Your task to perform on an android device: View the shopping cart on newegg.com. Search for corsair k70 on newegg.com, select the first entry, add it to the cart, then select checkout. Image 0: 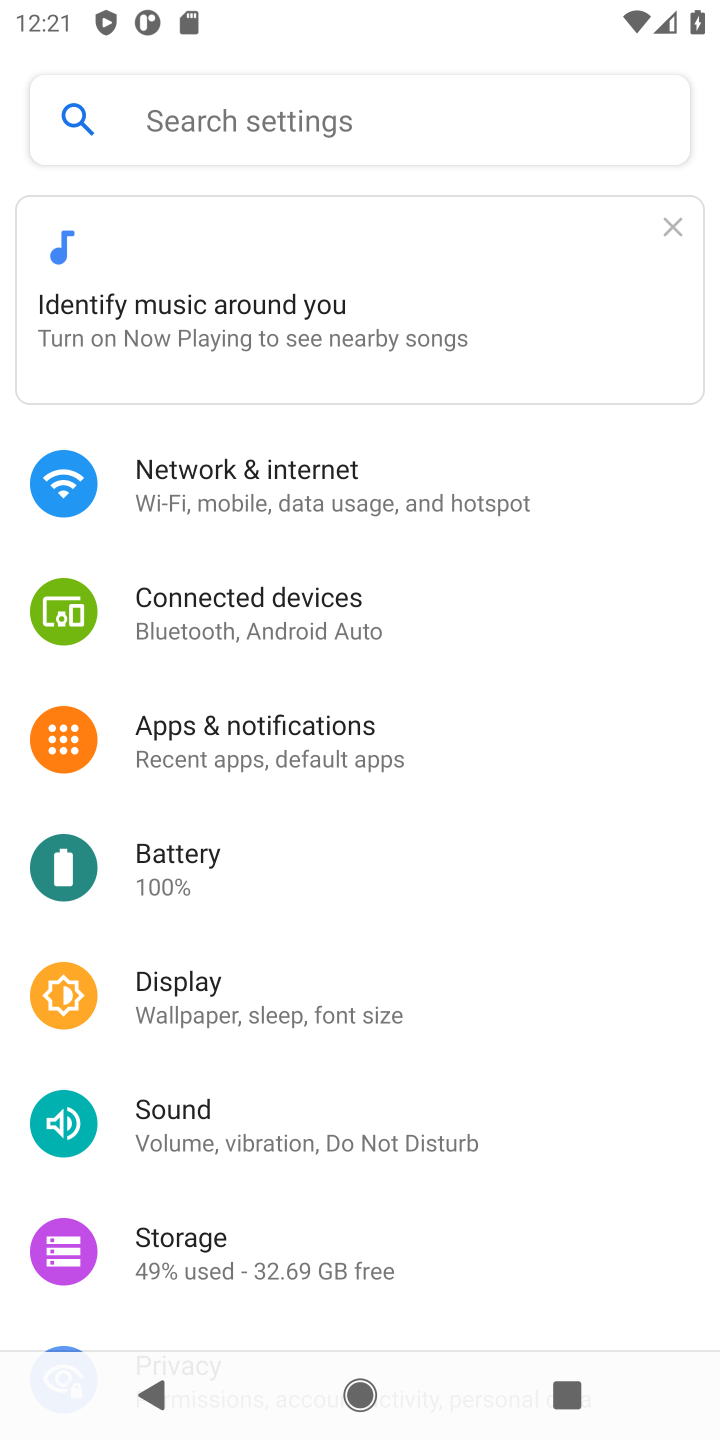
Step 0: press home button
Your task to perform on an android device: View the shopping cart on newegg.com. Search for corsair k70 on newegg.com, select the first entry, add it to the cart, then select checkout. Image 1: 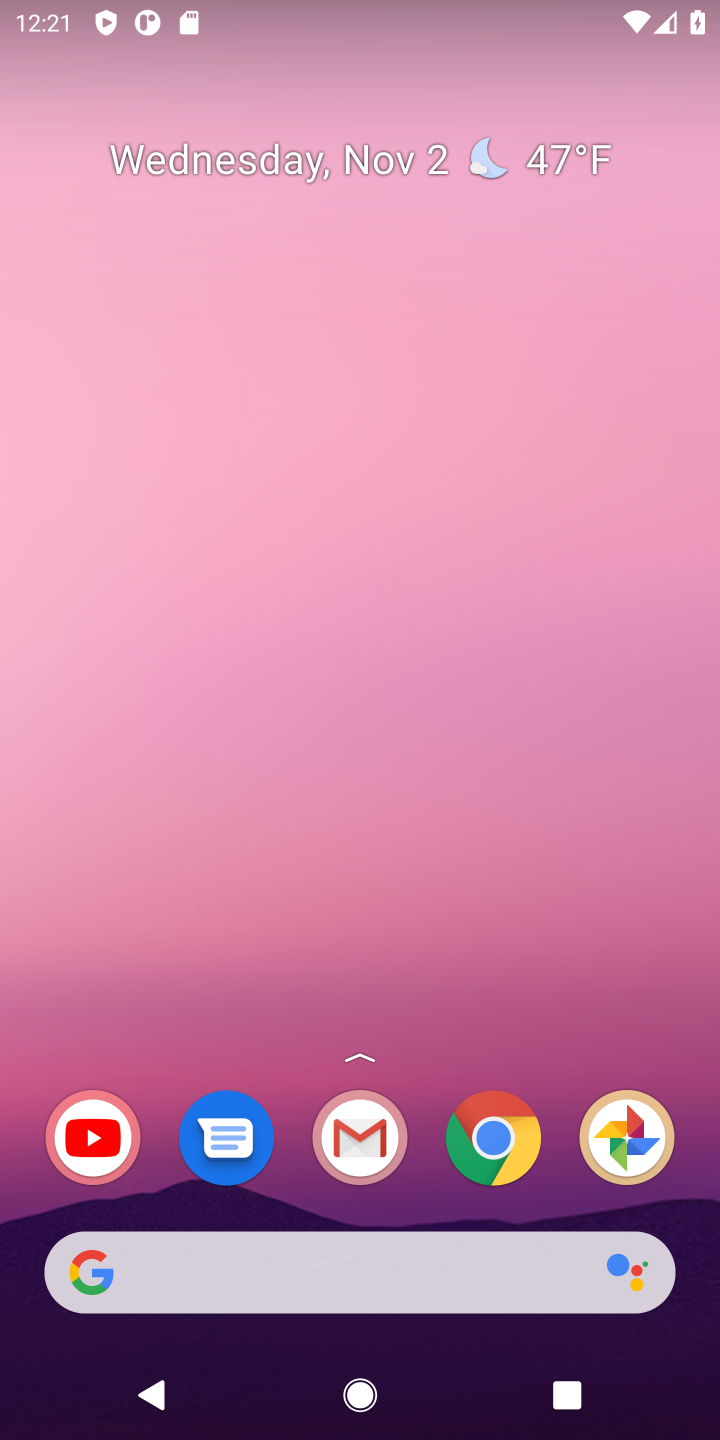
Step 1: drag from (431, 1346) to (359, 205)
Your task to perform on an android device: View the shopping cart on newegg.com. Search for corsair k70 on newegg.com, select the first entry, add it to the cart, then select checkout. Image 2: 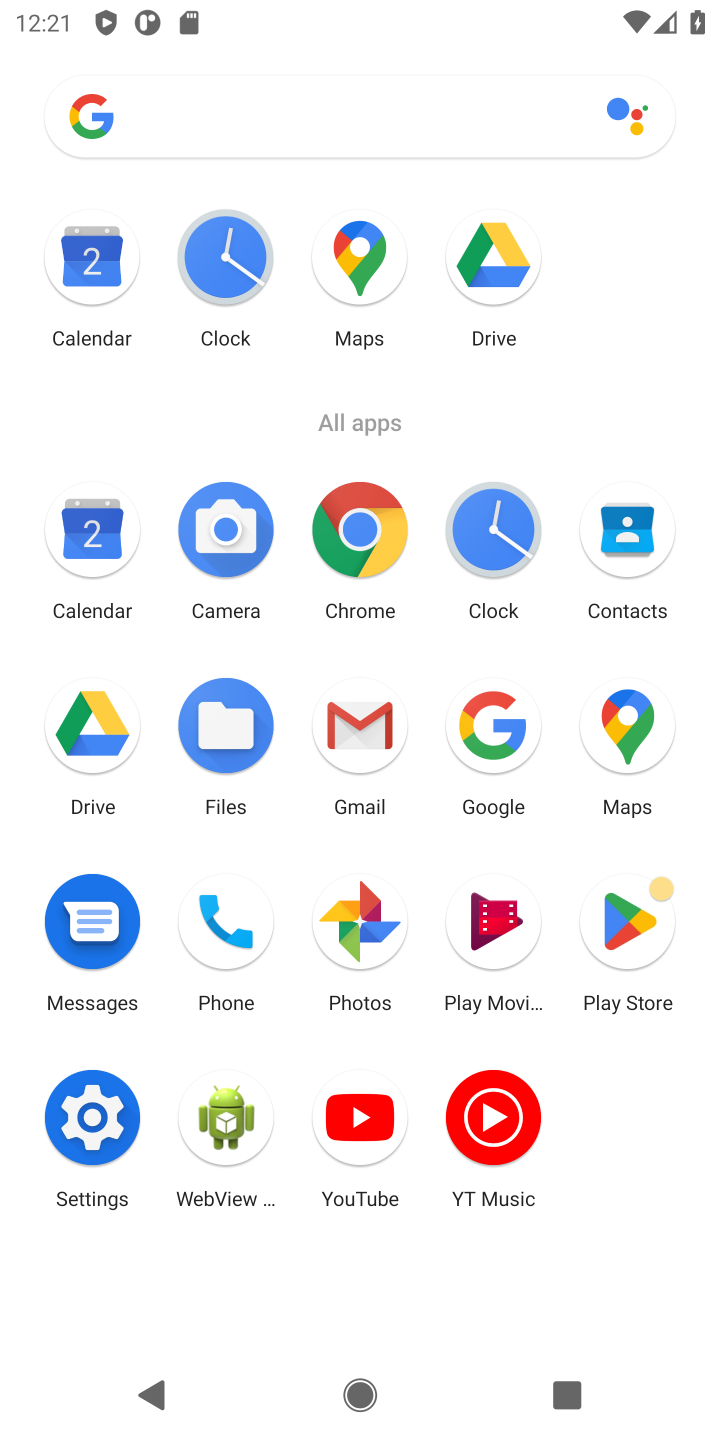
Step 2: click (356, 509)
Your task to perform on an android device: View the shopping cart on newegg.com. Search for corsair k70 on newegg.com, select the first entry, add it to the cart, then select checkout. Image 3: 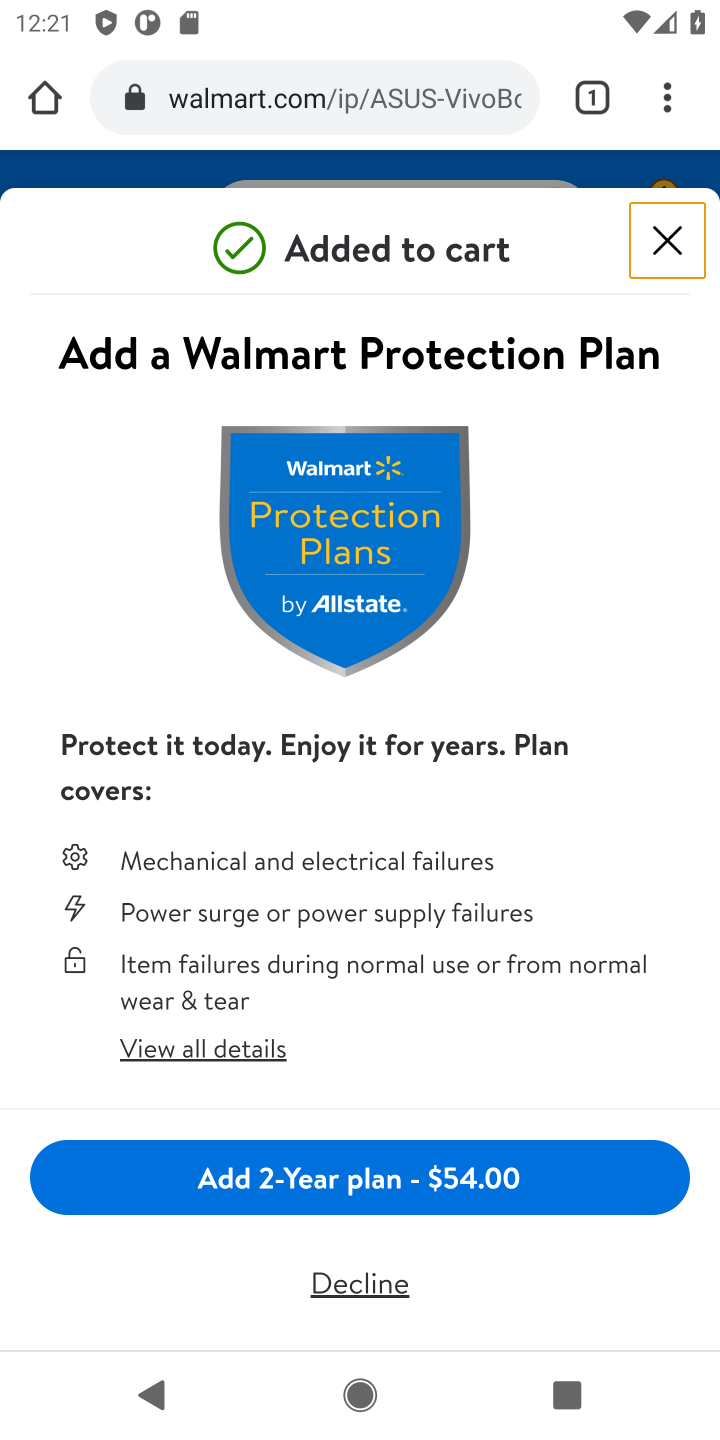
Step 3: click (382, 93)
Your task to perform on an android device: View the shopping cart on newegg.com. Search for corsair k70 on newegg.com, select the first entry, add it to the cart, then select checkout. Image 4: 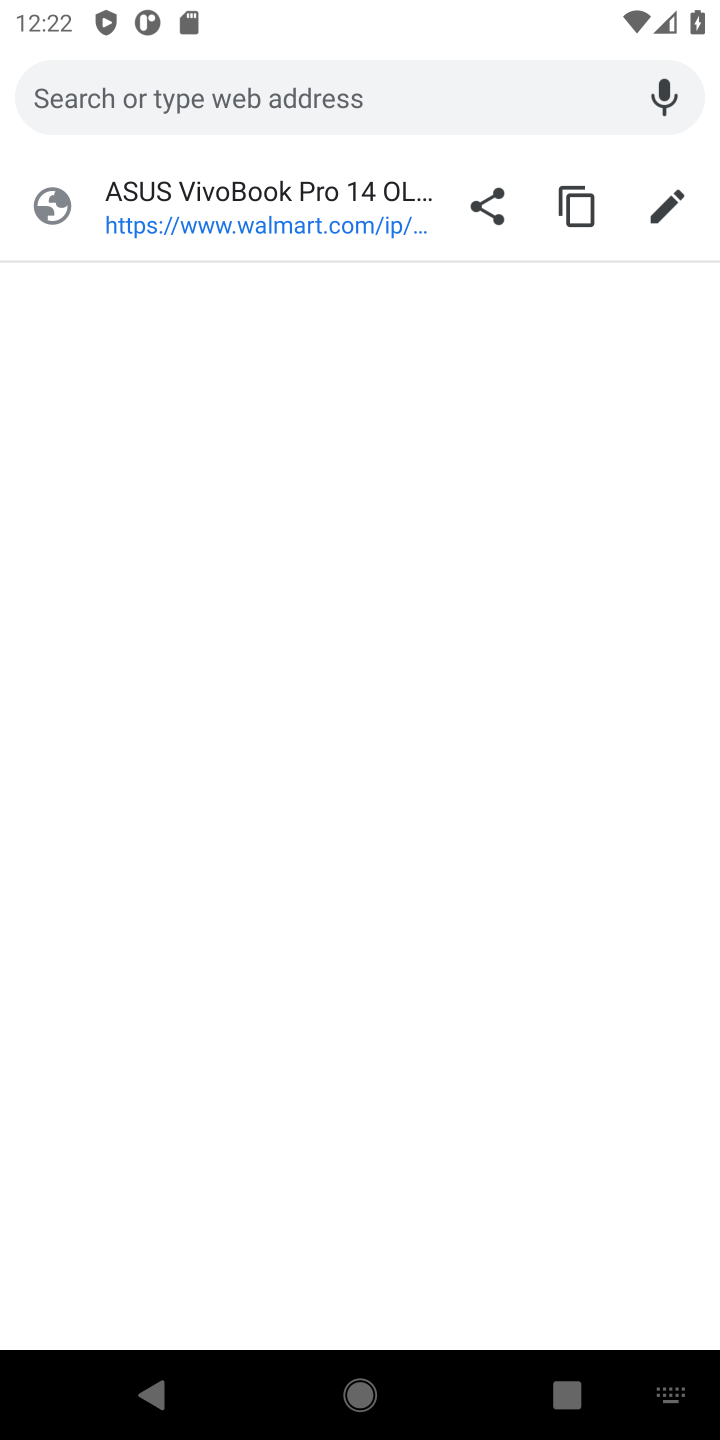
Step 4: type " newegg.com"
Your task to perform on an android device: View the shopping cart on newegg.com. Search for corsair k70 on newegg.com, select the first entry, add it to the cart, then select checkout. Image 5: 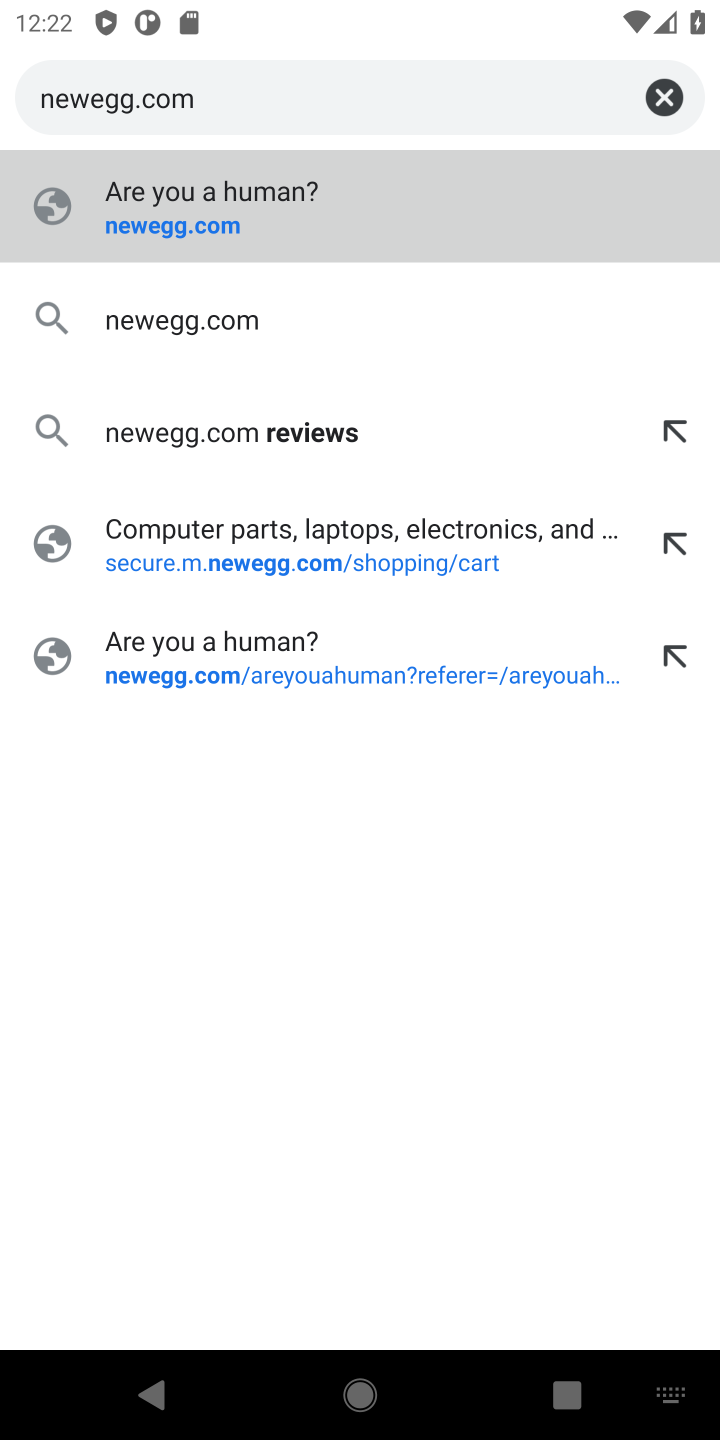
Step 5: type ""
Your task to perform on an android device: View the shopping cart on newegg.com. Search for corsair k70 on newegg.com, select the first entry, add it to the cart, then select checkout. Image 6: 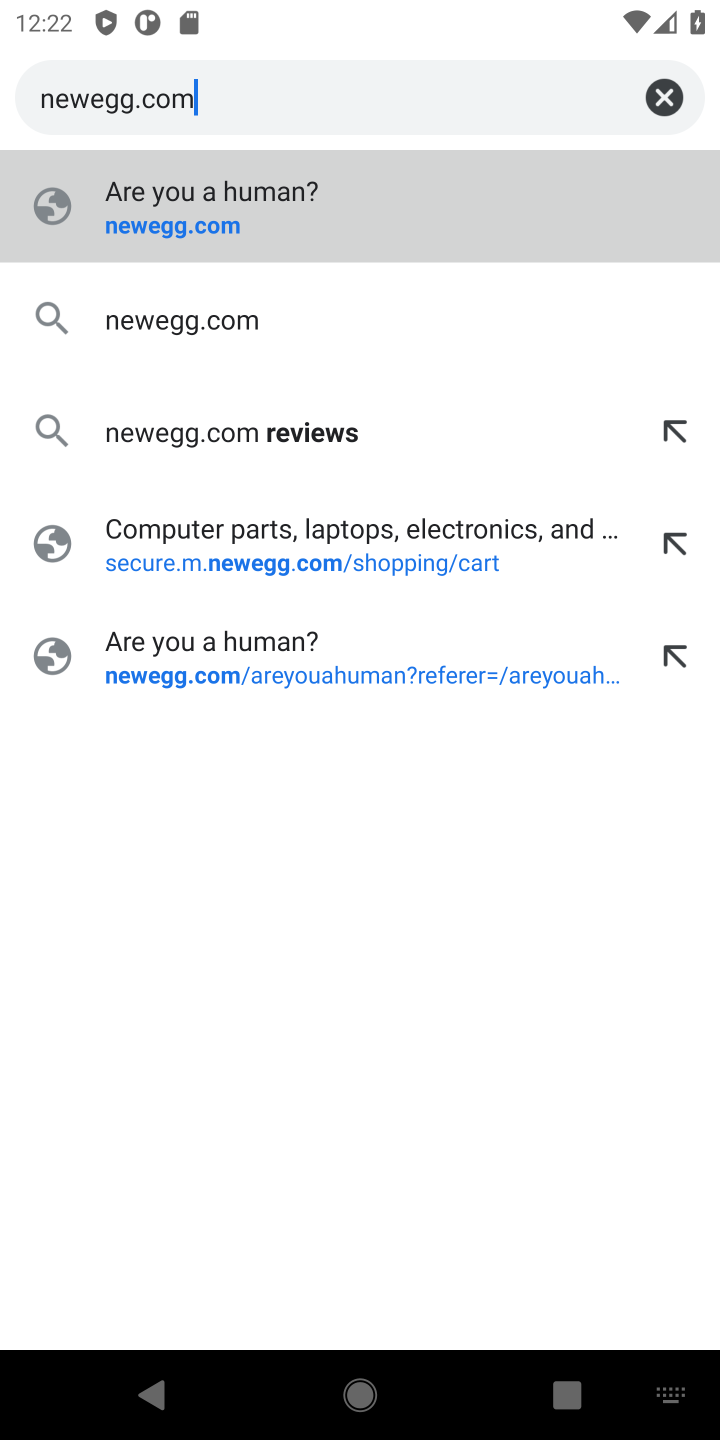
Step 6: click (168, 225)
Your task to perform on an android device: View the shopping cart on newegg.com. Search for corsair k70 on newegg.com, select the first entry, add it to the cart, then select checkout. Image 7: 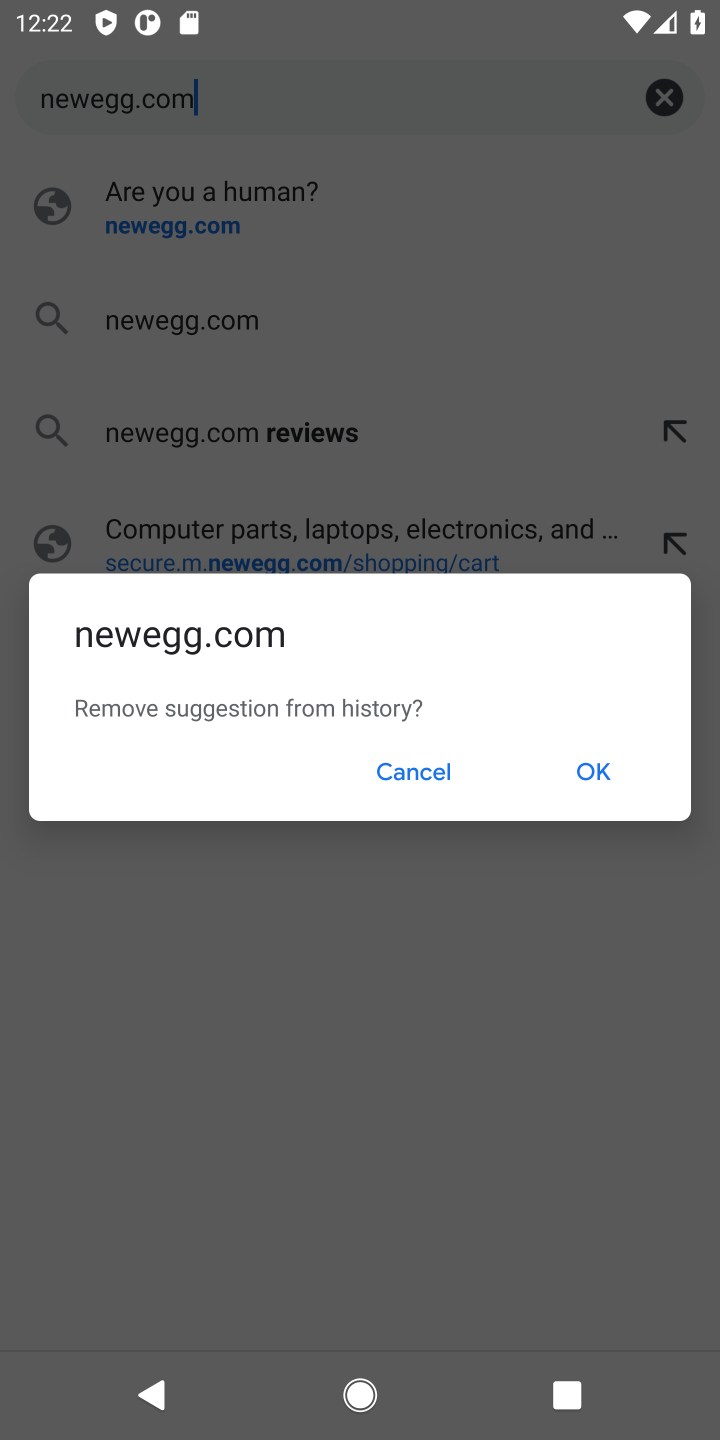
Step 7: click (594, 760)
Your task to perform on an android device: View the shopping cart on newegg.com. Search for corsair k70 on newegg.com, select the first entry, add it to the cart, then select checkout. Image 8: 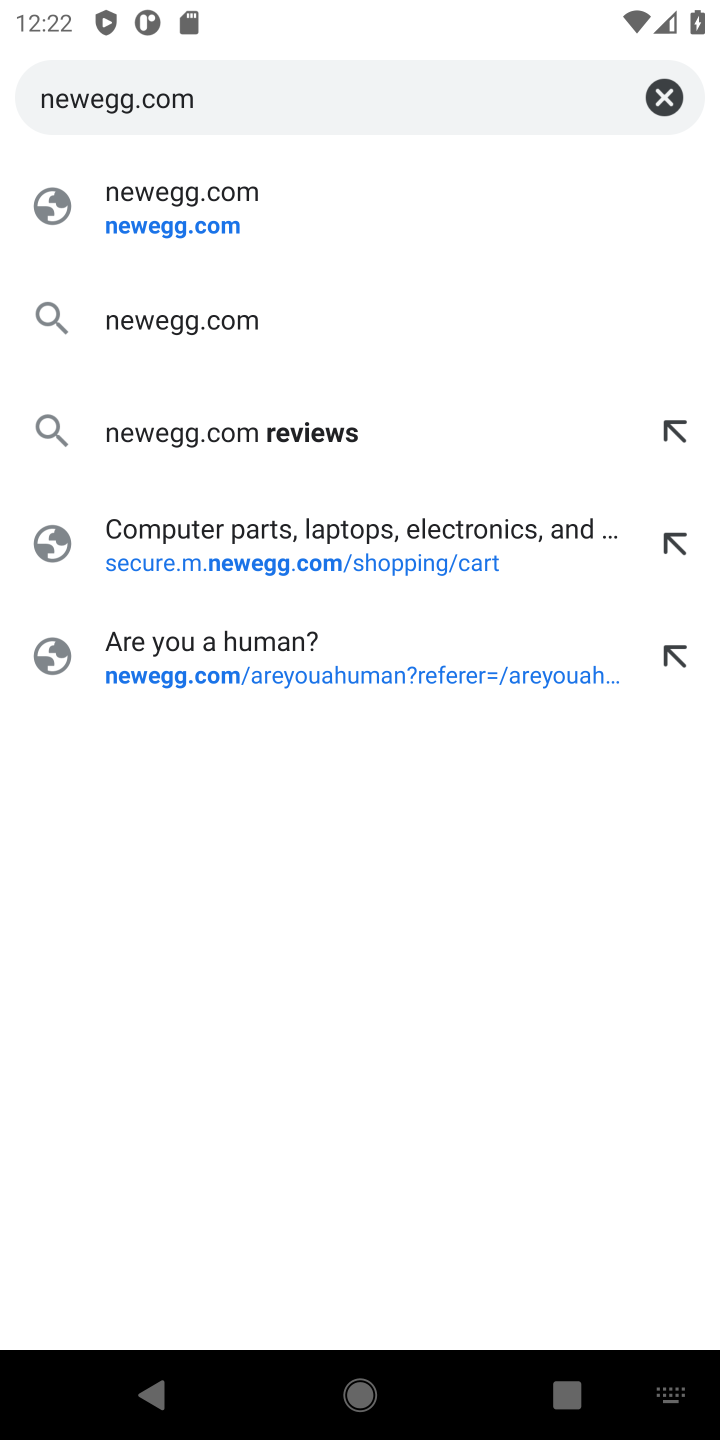
Step 8: click (161, 221)
Your task to perform on an android device: View the shopping cart on newegg.com. Search for corsair k70 on newegg.com, select the first entry, add it to the cart, then select checkout. Image 9: 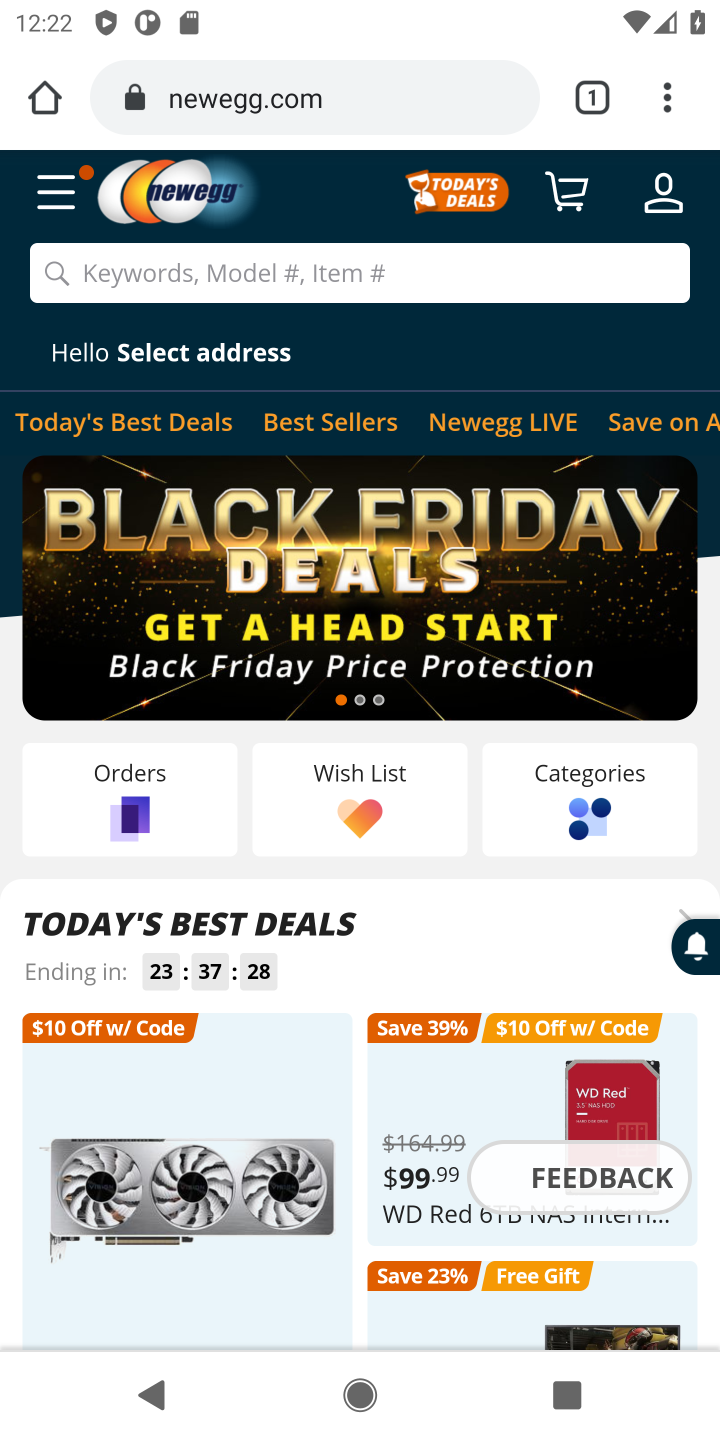
Step 9: click (215, 262)
Your task to perform on an android device: View the shopping cart on newegg.com. Search for corsair k70 on newegg.com, select the first entry, add it to the cart, then select checkout. Image 10: 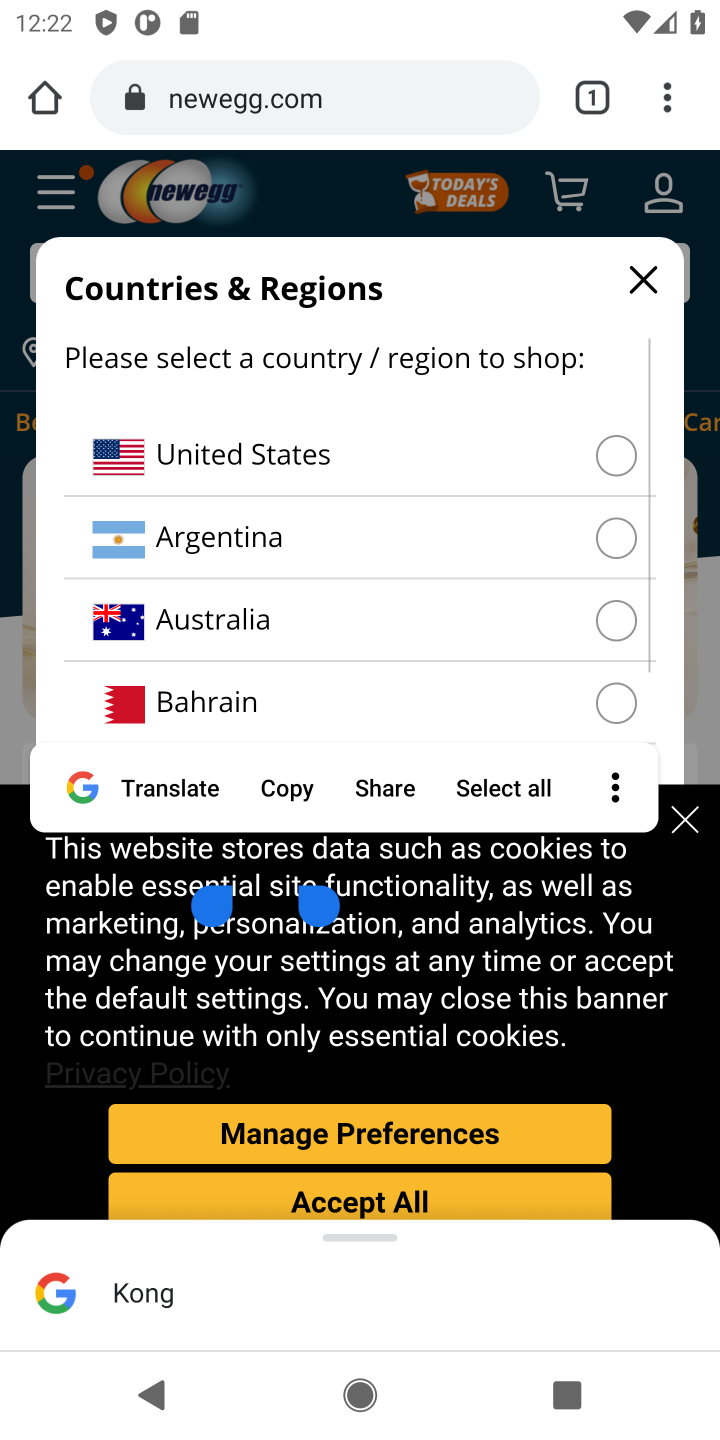
Step 10: click (564, 190)
Your task to perform on an android device: View the shopping cart on newegg.com. Search for corsair k70 on newegg.com, select the first entry, add it to the cart, then select checkout. Image 11: 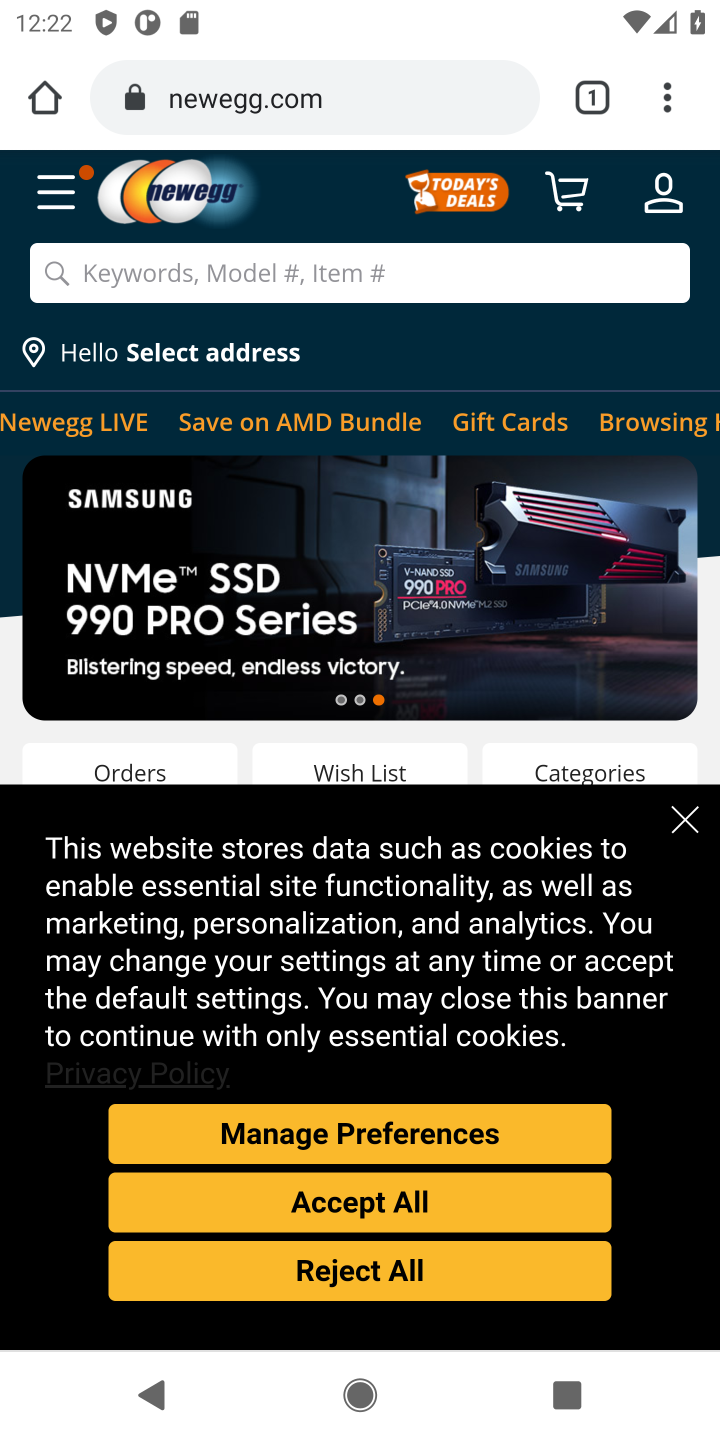
Step 11: click (570, 189)
Your task to perform on an android device: View the shopping cart on newegg.com. Search for corsair k70 on newegg.com, select the first entry, add it to the cart, then select checkout. Image 12: 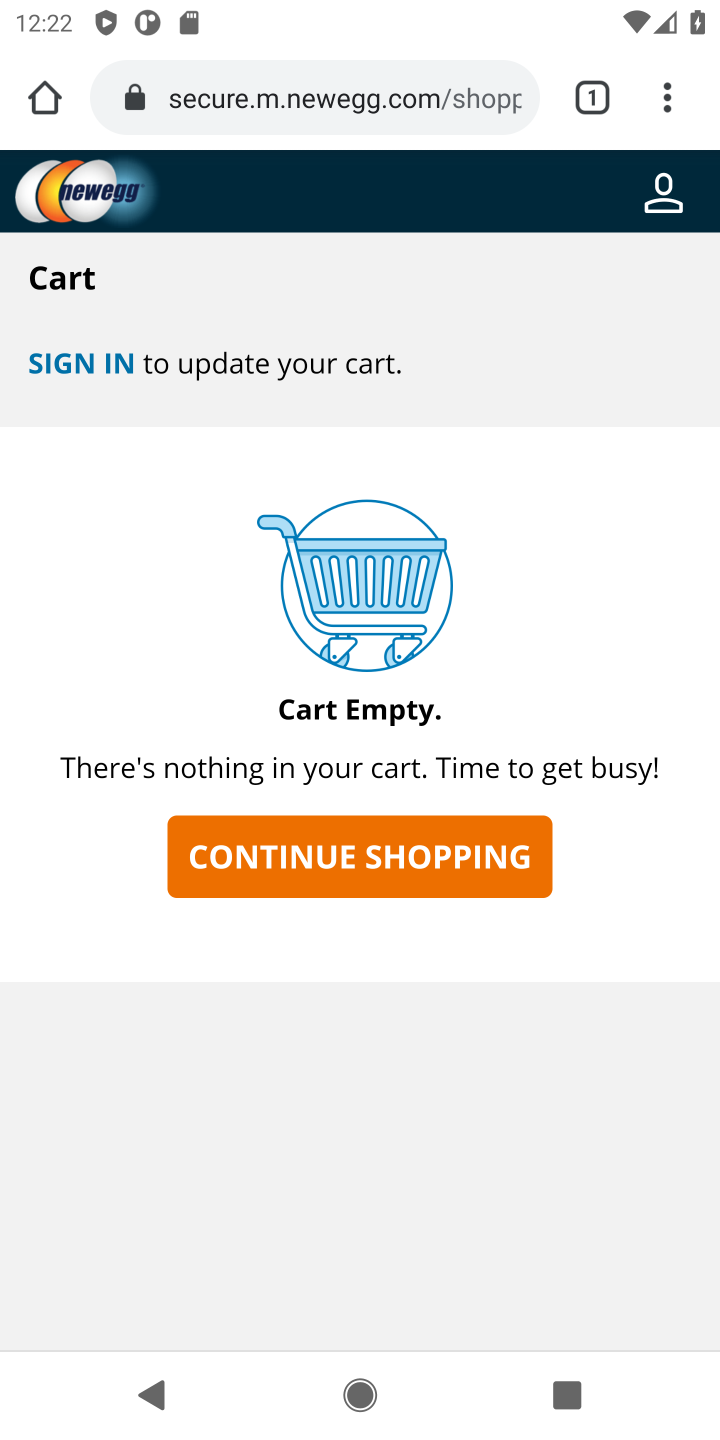
Step 12: press back button
Your task to perform on an android device: View the shopping cart on newegg.com. Search for corsair k70 on newegg.com, select the first entry, add it to the cart, then select checkout. Image 13: 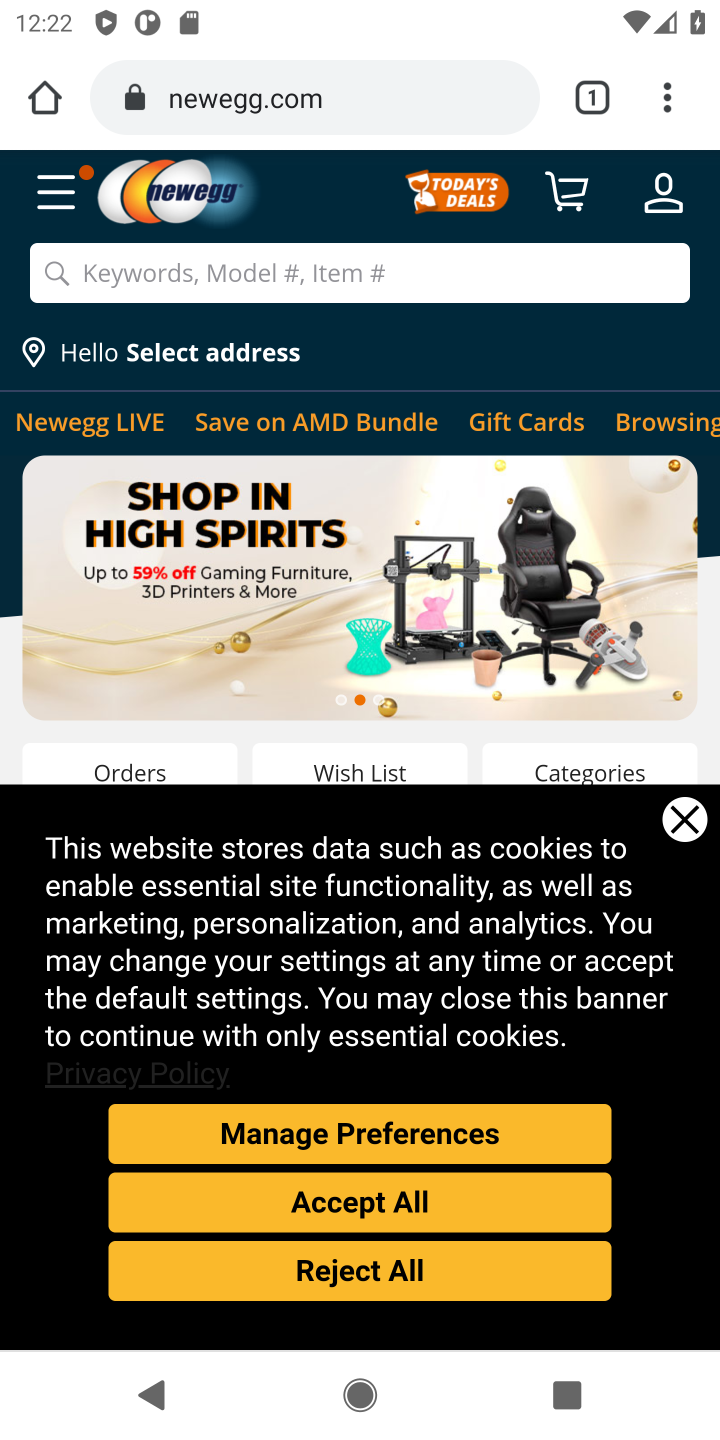
Step 13: click (421, 254)
Your task to perform on an android device: View the shopping cart on newegg.com. Search for corsair k70 on newegg.com, select the first entry, add it to the cart, then select checkout. Image 14: 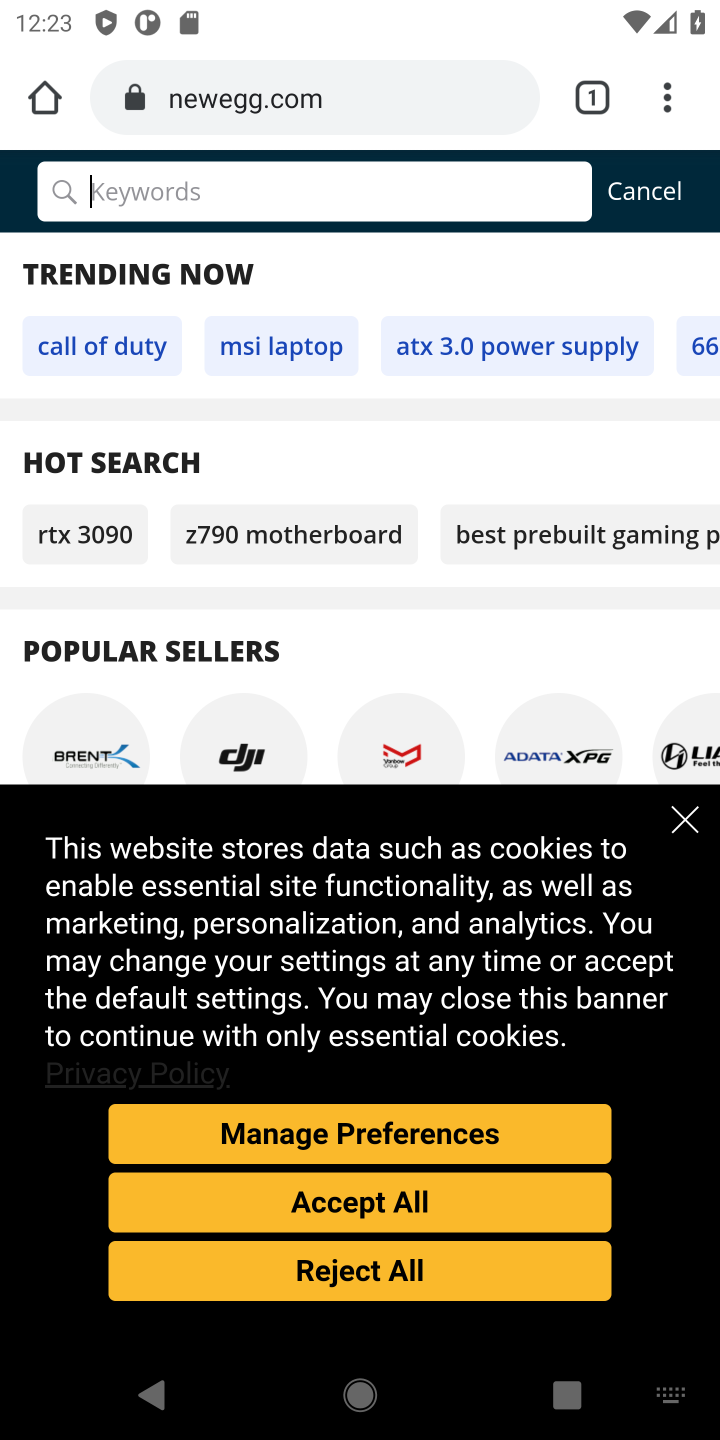
Step 14: type "corsair k70"
Your task to perform on an android device: View the shopping cart on newegg.com. Search for corsair k70 on newegg.com, select the first entry, add it to the cart, then select checkout. Image 15: 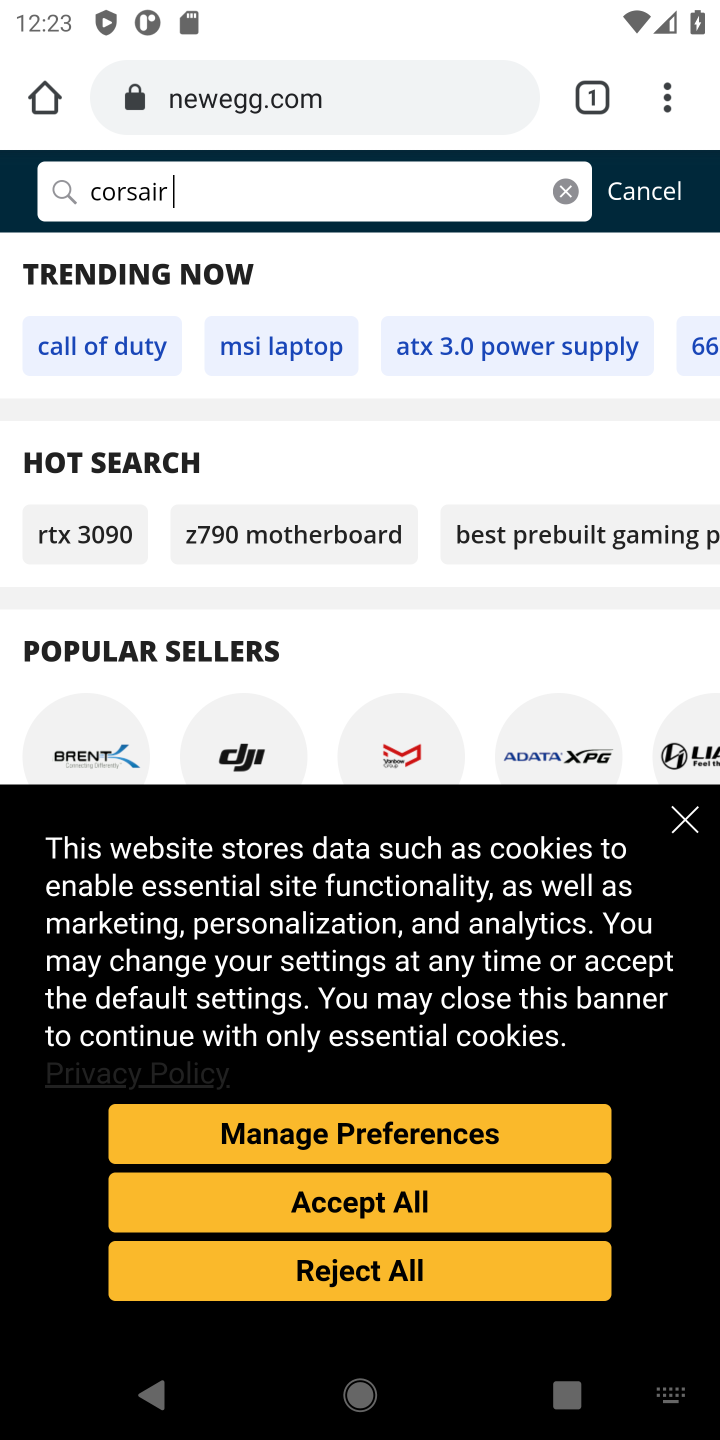
Step 15: type ""
Your task to perform on an android device: View the shopping cart on newegg.com. Search for corsair k70 on newegg.com, select the first entry, add it to the cart, then select checkout. Image 16: 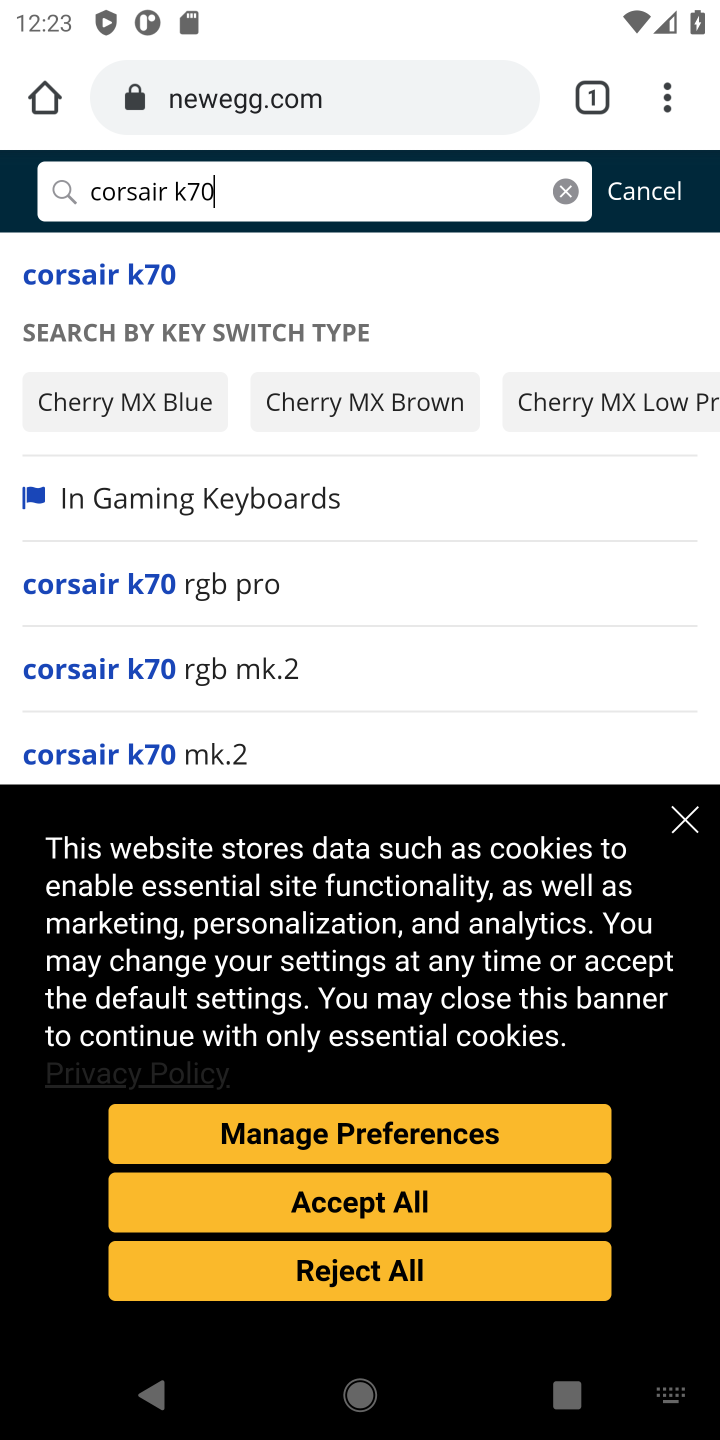
Step 16: click (91, 267)
Your task to perform on an android device: View the shopping cart on newegg.com. Search for corsair k70 on newegg.com, select the first entry, add it to the cart, then select checkout. Image 17: 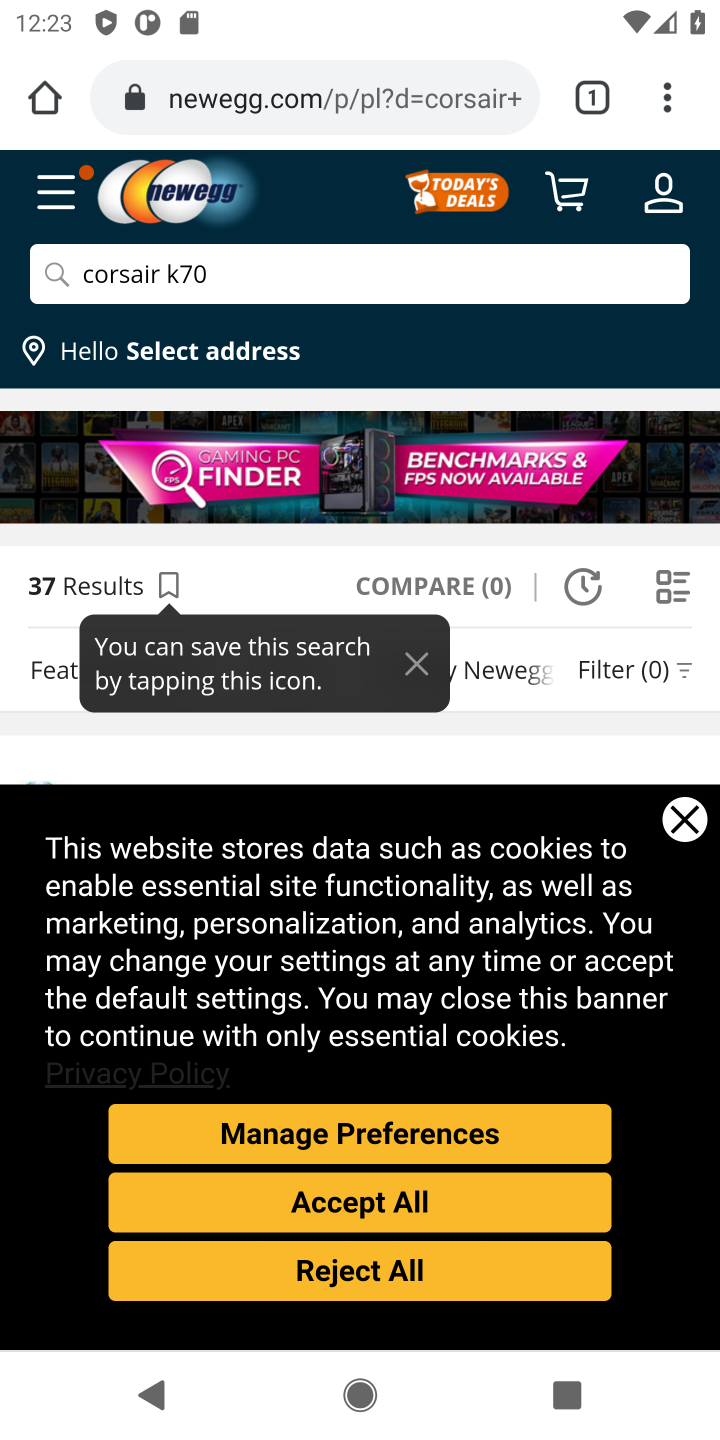
Step 17: click (681, 818)
Your task to perform on an android device: View the shopping cart on newegg.com. Search for corsair k70 on newegg.com, select the first entry, add it to the cart, then select checkout. Image 18: 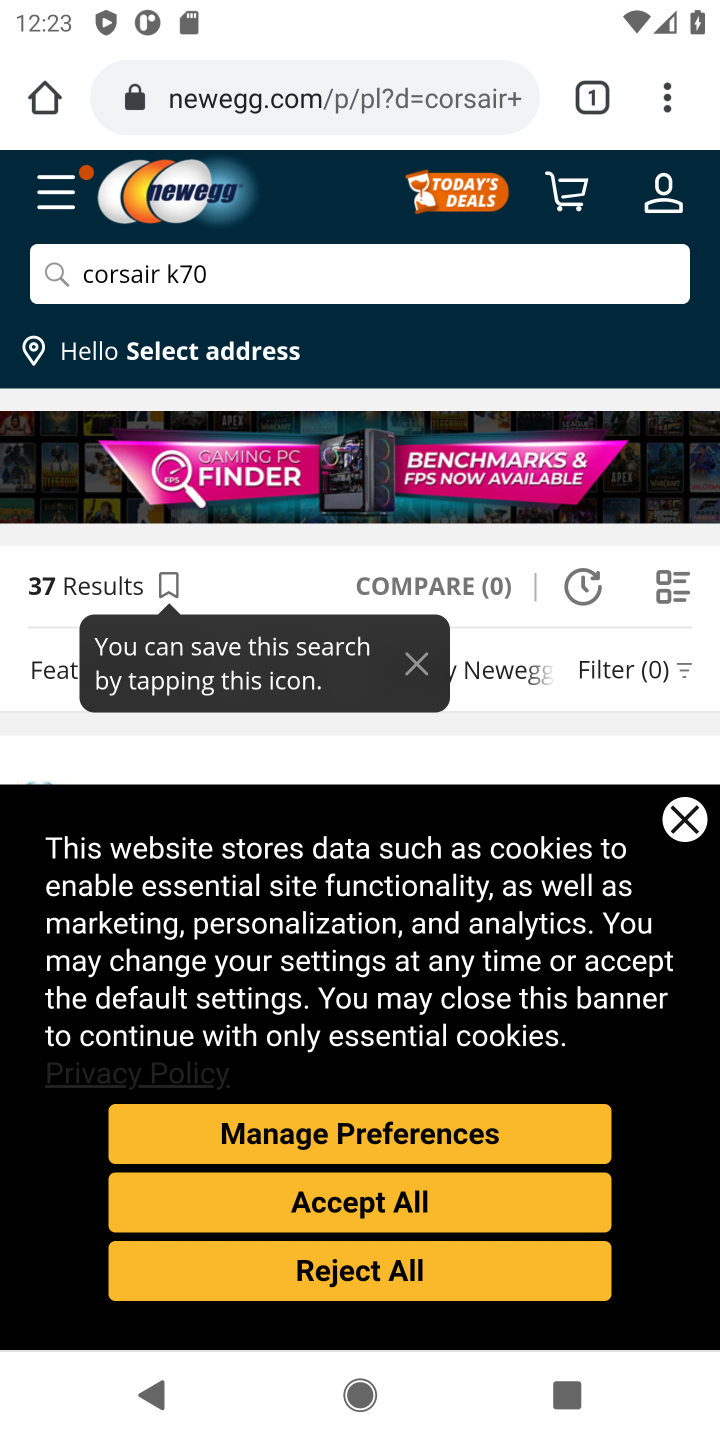
Step 18: click (682, 820)
Your task to perform on an android device: View the shopping cart on newegg.com. Search for corsair k70 on newegg.com, select the first entry, add it to the cart, then select checkout. Image 19: 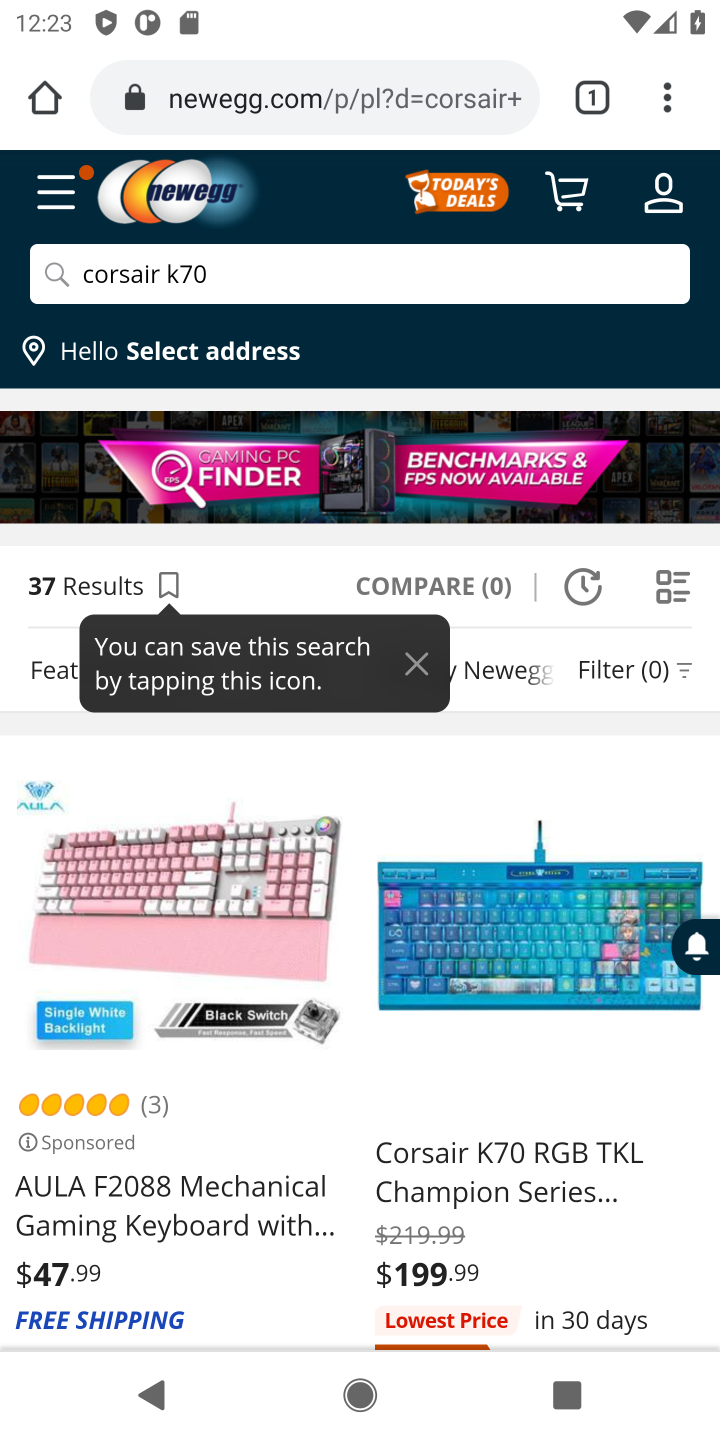
Step 19: click (153, 916)
Your task to perform on an android device: View the shopping cart on newegg.com. Search for corsair k70 on newegg.com, select the first entry, add it to the cart, then select checkout. Image 20: 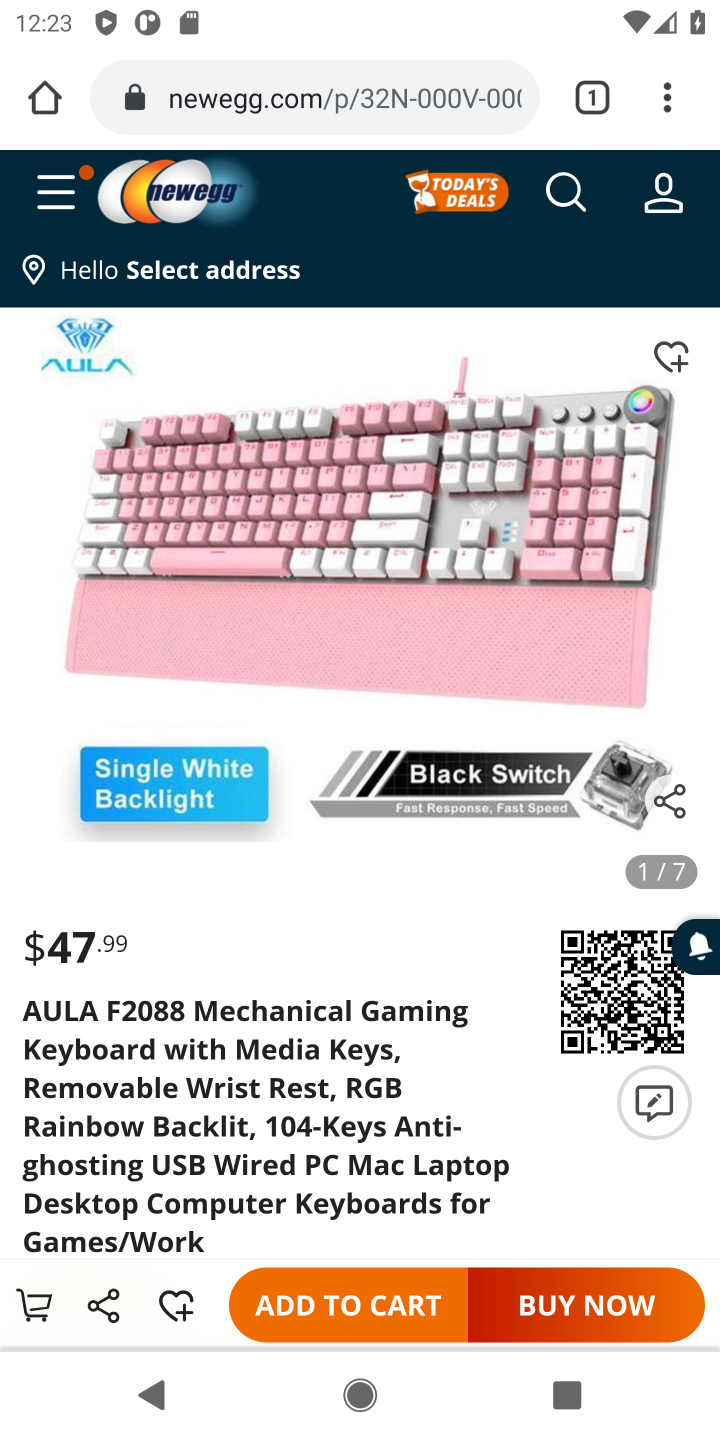
Step 20: click (371, 1308)
Your task to perform on an android device: View the shopping cart on newegg.com. Search for corsair k70 on newegg.com, select the first entry, add it to the cart, then select checkout. Image 21: 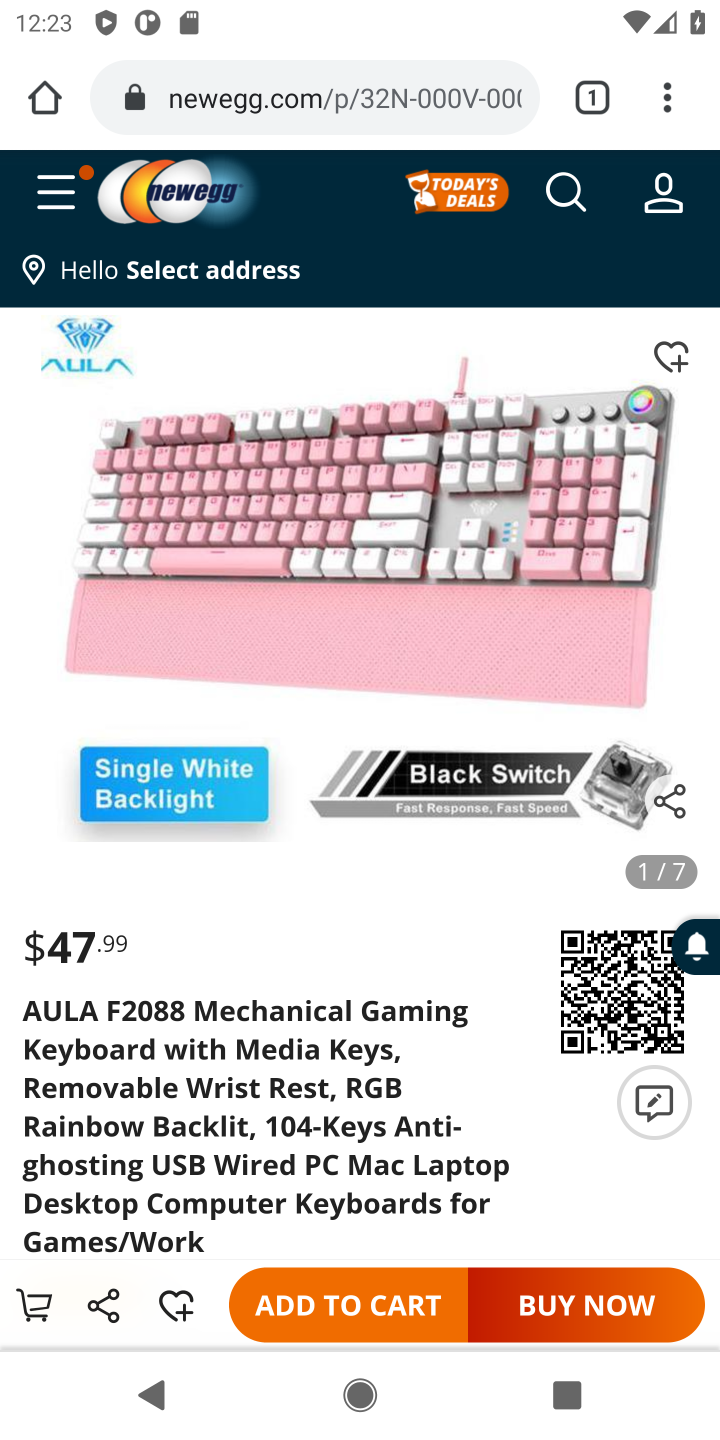
Step 21: click (339, 1304)
Your task to perform on an android device: View the shopping cart on newegg.com. Search for corsair k70 on newegg.com, select the first entry, add it to the cart, then select checkout. Image 22: 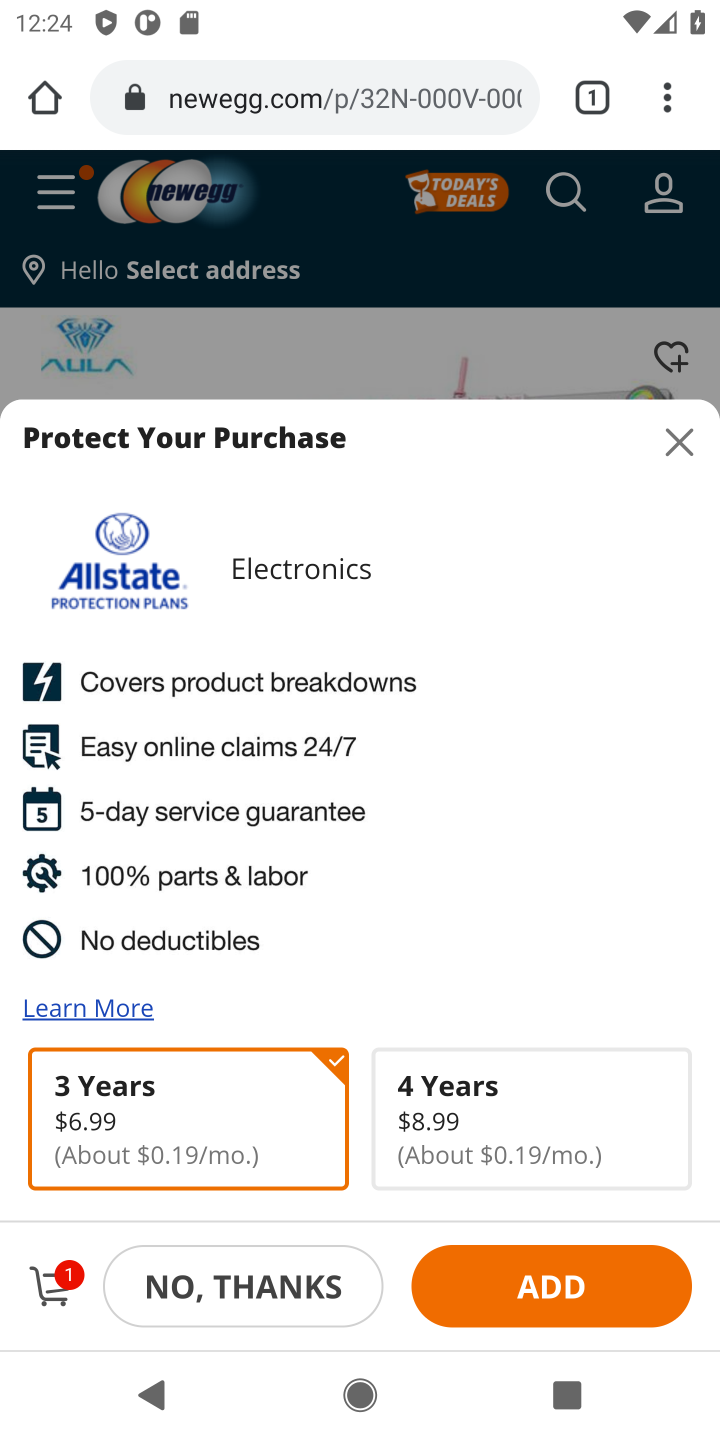
Step 22: task complete